Your task to perform on an android device: open device folders in google photos Image 0: 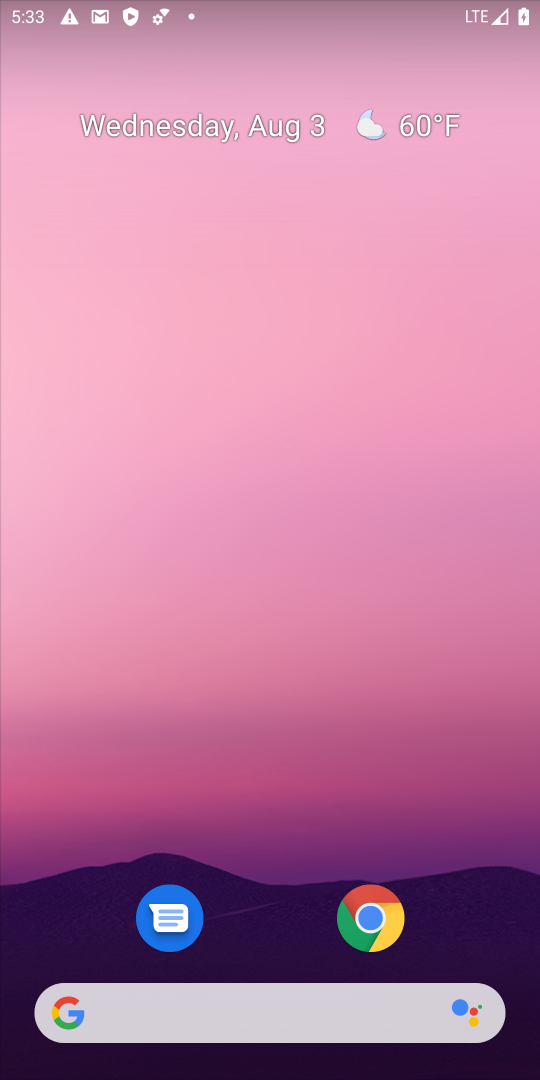
Step 0: drag from (283, 1022) to (331, 56)
Your task to perform on an android device: open device folders in google photos Image 1: 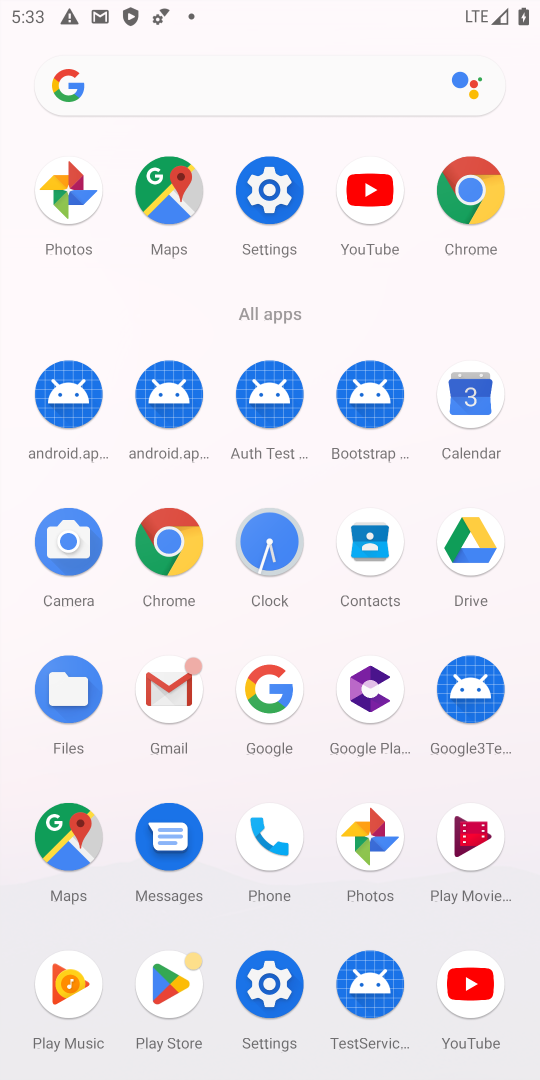
Step 1: click (379, 847)
Your task to perform on an android device: open device folders in google photos Image 2: 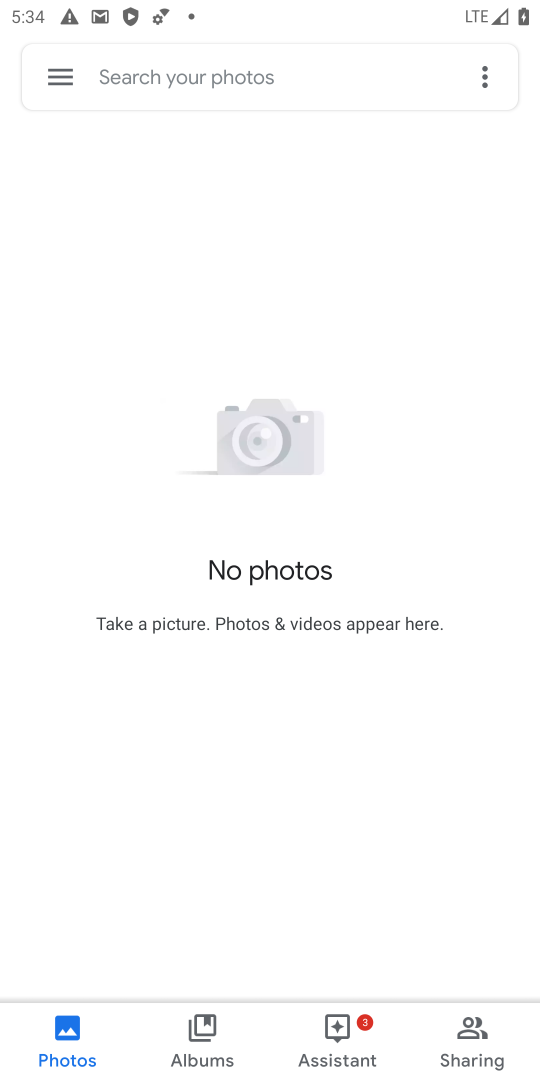
Step 2: click (209, 1018)
Your task to perform on an android device: open device folders in google photos Image 3: 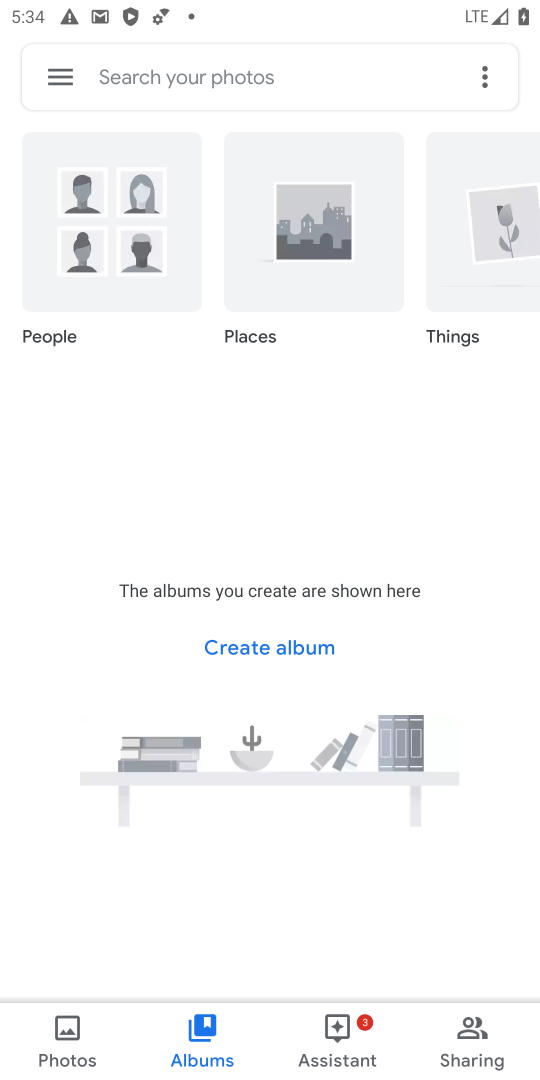
Step 3: task complete